Your task to perform on an android device: turn off data saver in the chrome app Image 0: 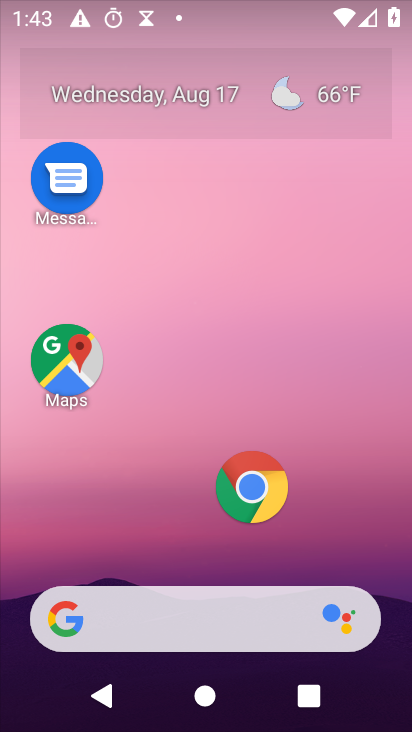
Step 0: press home button
Your task to perform on an android device: turn off data saver in the chrome app Image 1: 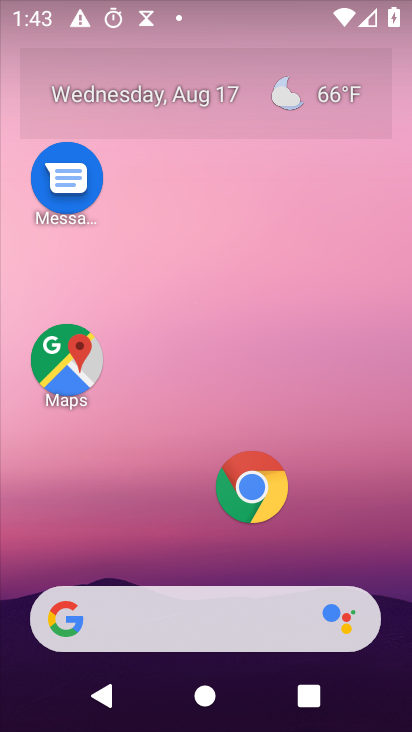
Step 1: click (244, 485)
Your task to perform on an android device: turn off data saver in the chrome app Image 2: 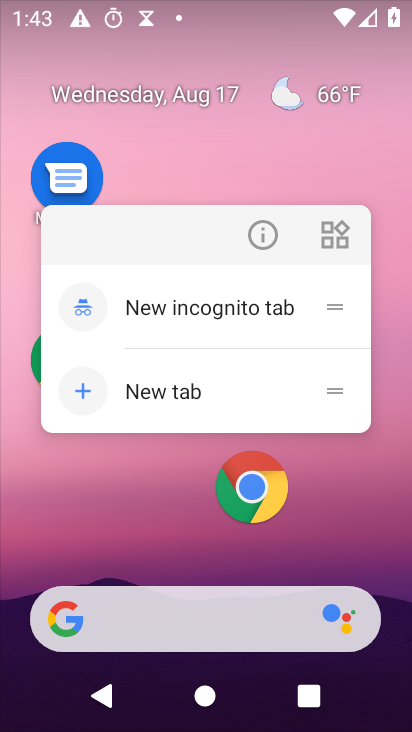
Step 2: click (244, 483)
Your task to perform on an android device: turn off data saver in the chrome app Image 3: 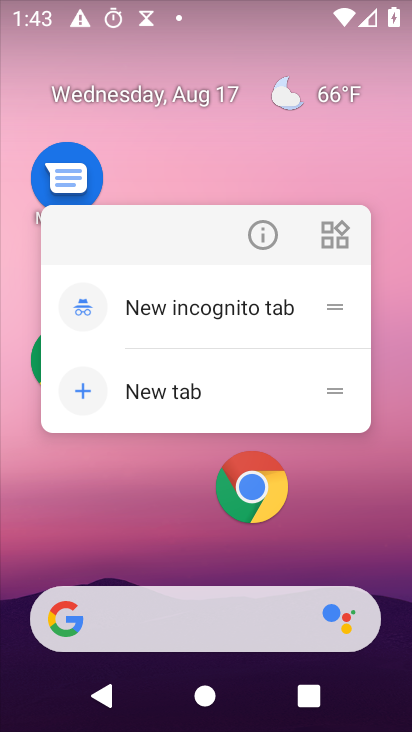
Step 3: click (244, 490)
Your task to perform on an android device: turn off data saver in the chrome app Image 4: 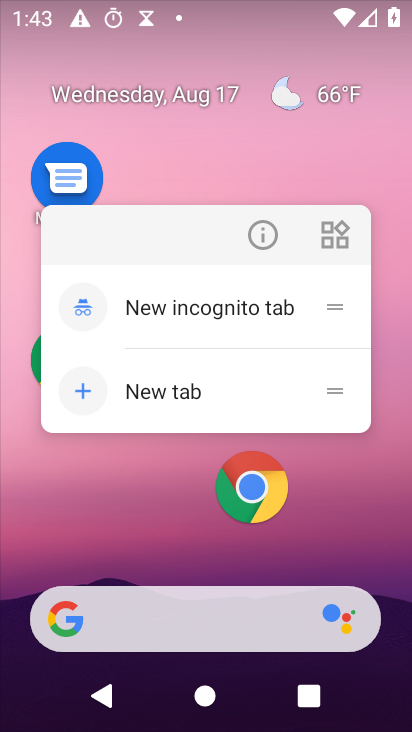
Step 4: click (244, 490)
Your task to perform on an android device: turn off data saver in the chrome app Image 5: 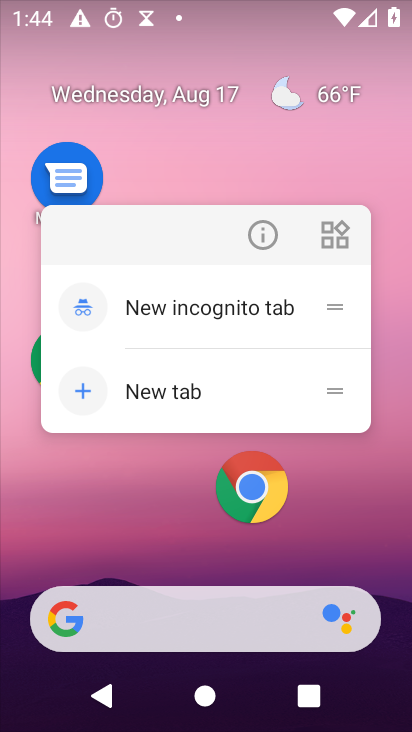
Step 5: click (244, 490)
Your task to perform on an android device: turn off data saver in the chrome app Image 6: 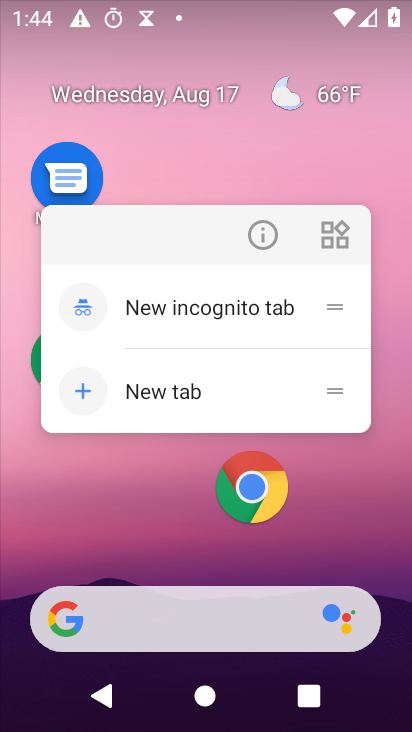
Step 6: click (244, 490)
Your task to perform on an android device: turn off data saver in the chrome app Image 7: 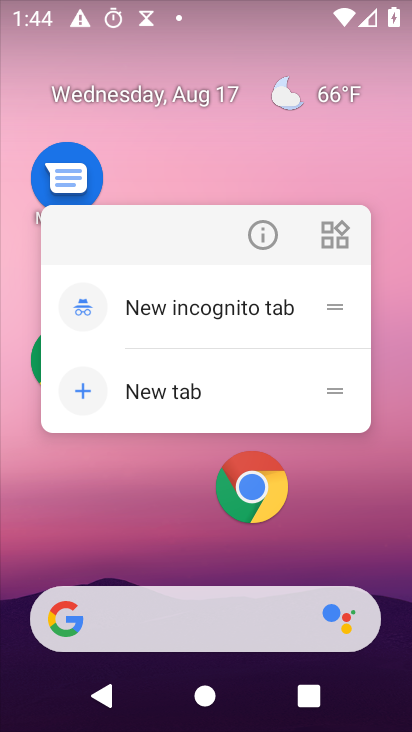
Step 7: click (244, 490)
Your task to perform on an android device: turn off data saver in the chrome app Image 8: 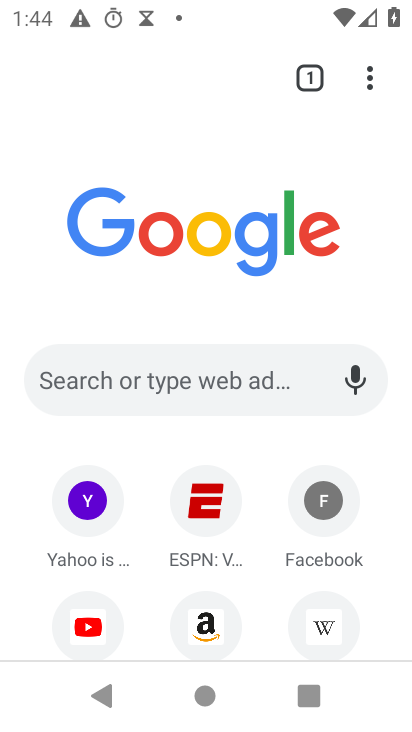
Step 8: drag from (368, 77) to (128, 556)
Your task to perform on an android device: turn off data saver in the chrome app Image 9: 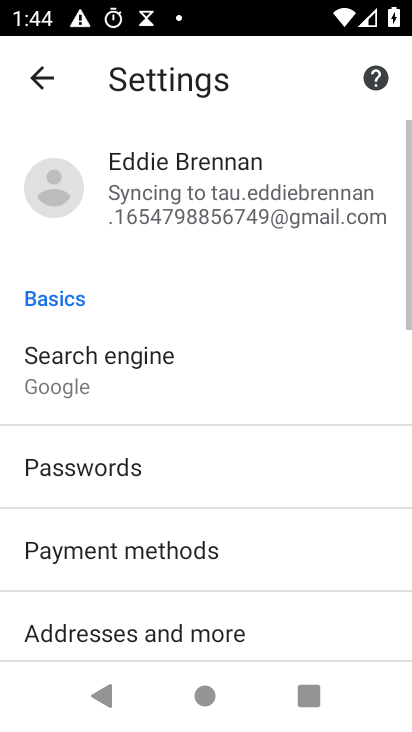
Step 9: drag from (297, 619) to (310, 167)
Your task to perform on an android device: turn off data saver in the chrome app Image 10: 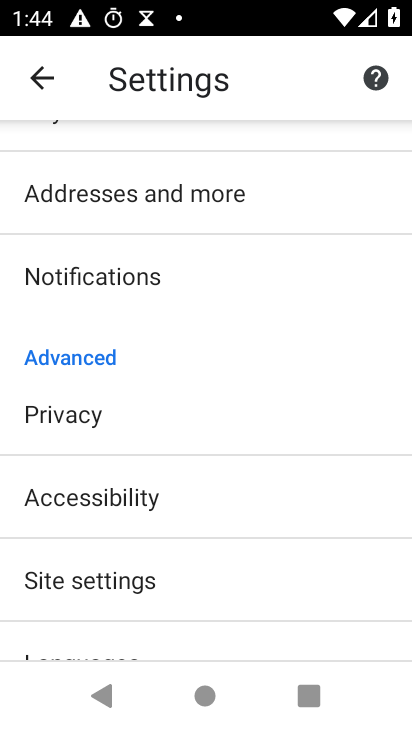
Step 10: drag from (331, 570) to (336, 380)
Your task to perform on an android device: turn off data saver in the chrome app Image 11: 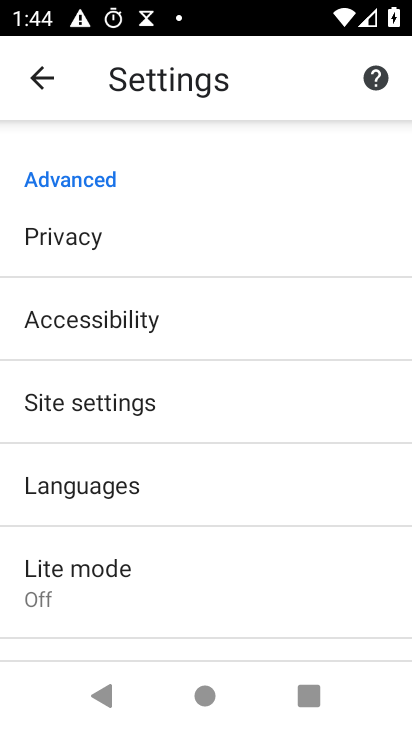
Step 11: click (74, 574)
Your task to perform on an android device: turn off data saver in the chrome app Image 12: 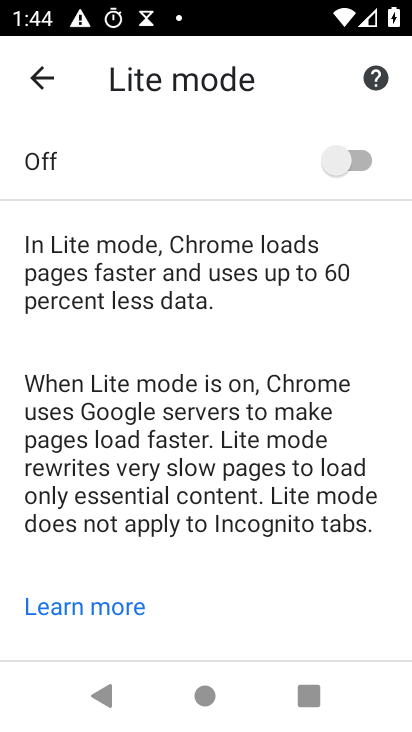
Step 12: task complete